Your task to perform on an android device: turn on notifications settings in the gmail app Image 0: 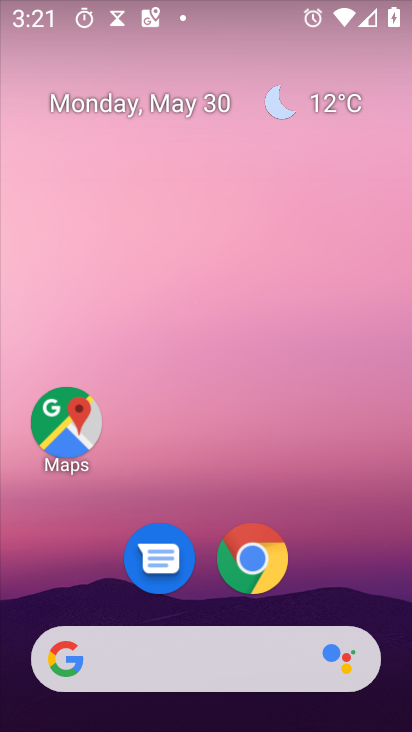
Step 0: drag from (206, 584) to (265, 67)
Your task to perform on an android device: turn on notifications settings in the gmail app Image 1: 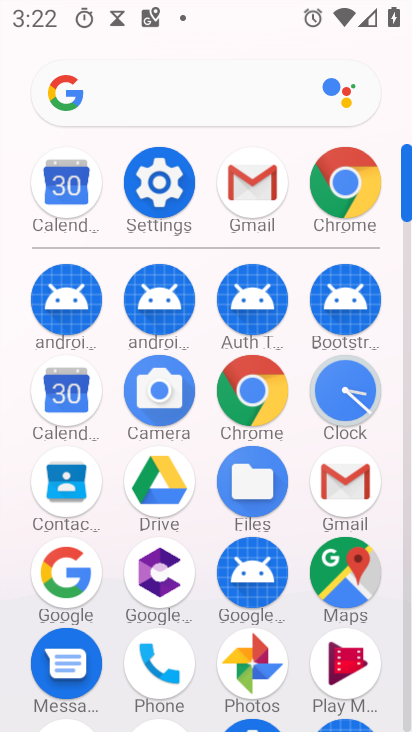
Step 1: click (353, 486)
Your task to perform on an android device: turn on notifications settings in the gmail app Image 2: 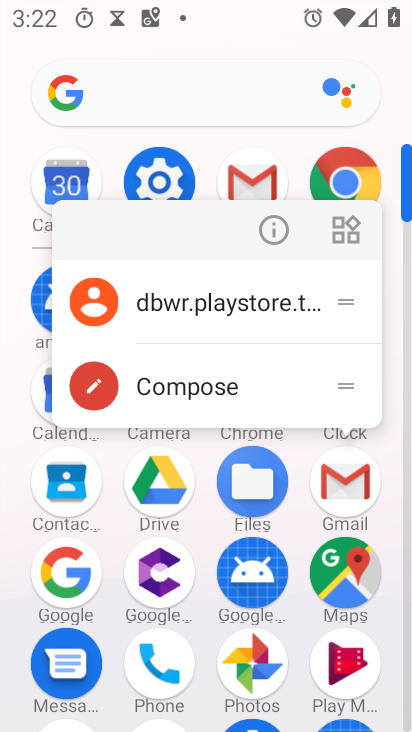
Step 2: click (278, 227)
Your task to perform on an android device: turn on notifications settings in the gmail app Image 3: 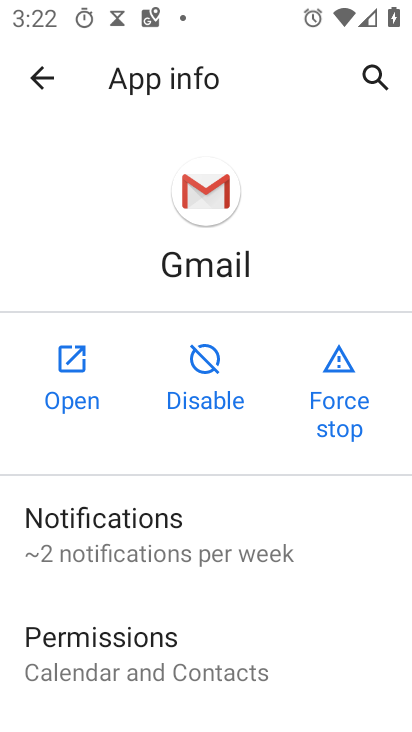
Step 3: click (98, 528)
Your task to perform on an android device: turn on notifications settings in the gmail app Image 4: 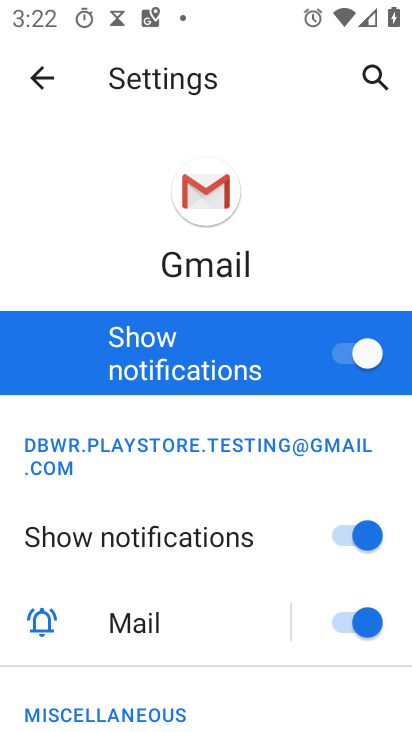
Step 4: task complete